Your task to perform on an android device: turn off notifications in google photos Image 0: 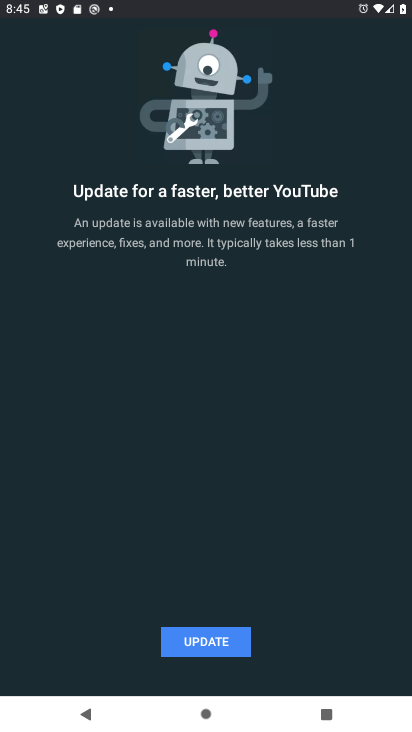
Step 0: press home button
Your task to perform on an android device: turn off notifications in google photos Image 1: 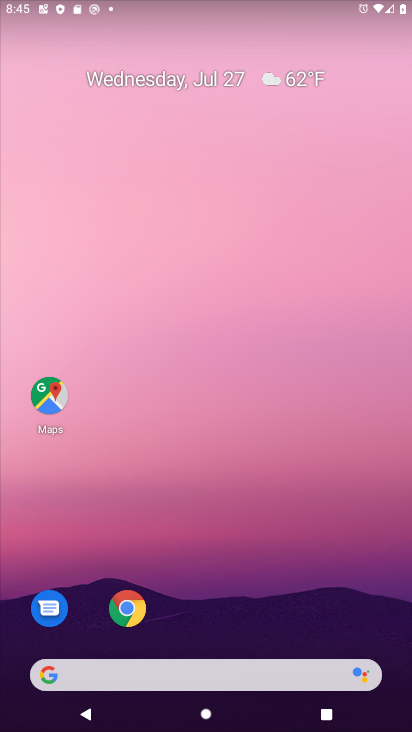
Step 1: click (312, 206)
Your task to perform on an android device: turn off notifications in google photos Image 2: 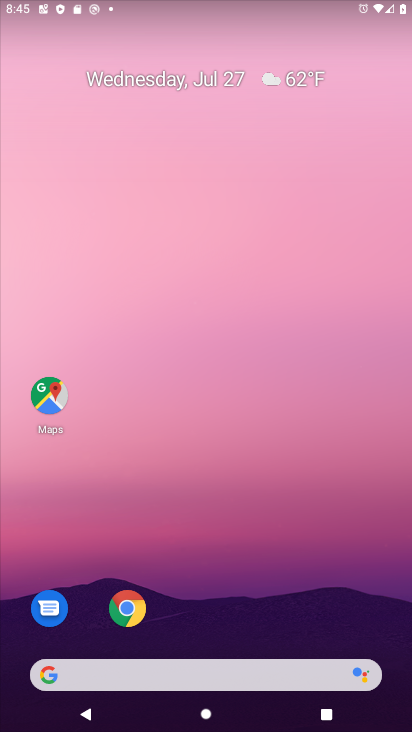
Step 2: drag from (276, 517) to (337, 168)
Your task to perform on an android device: turn off notifications in google photos Image 3: 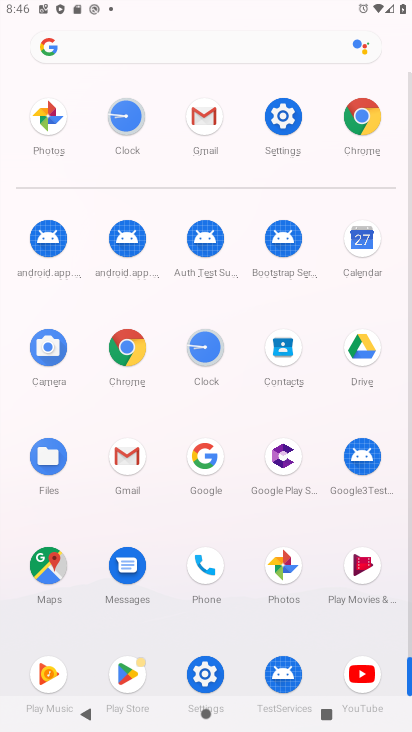
Step 3: click (286, 564)
Your task to perform on an android device: turn off notifications in google photos Image 4: 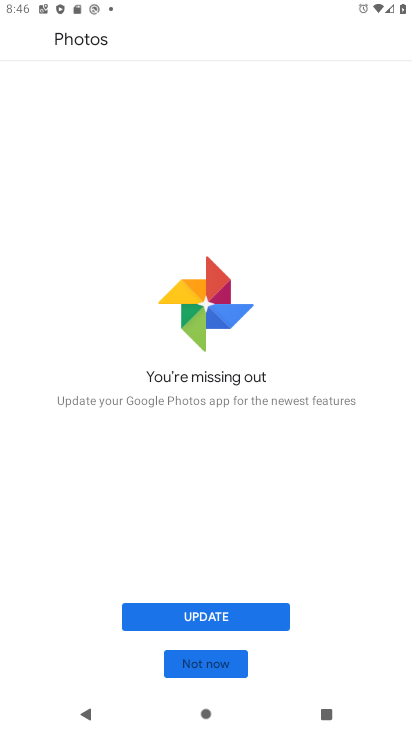
Step 4: task complete